Your task to perform on an android device: turn off wifi Image 0: 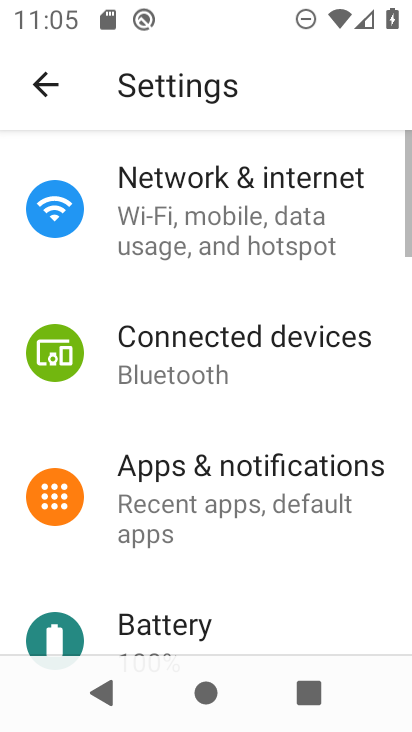
Step 0: press home button
Your task to perform on an android device: turn off wifi Image 1: 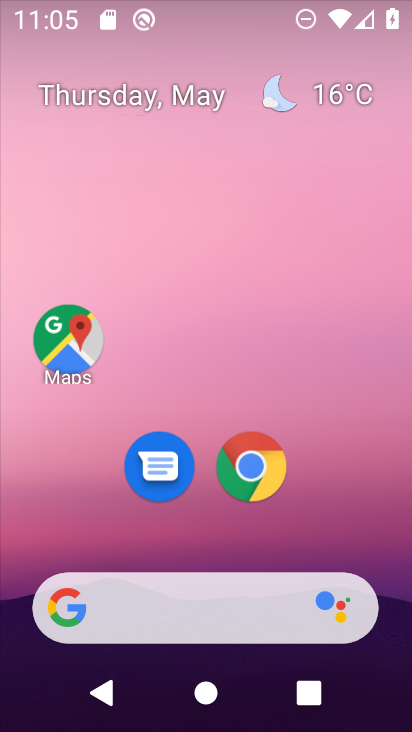
Step 1: drag from (308, 411) to (285, 202)
Your task to perform on an android device: turn off wifi Image 2: 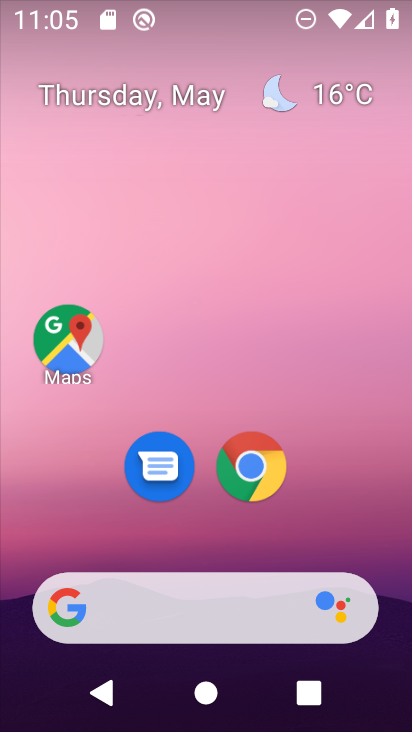
Step 2: drag from (323, 488) to (326, 265)
Your task to perform on an android device: turn off wifi Image 3: 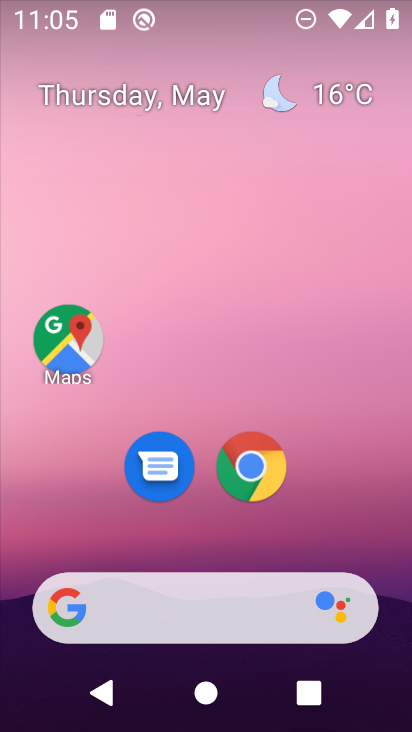
Step 3: drag from (359, 534) to (313, 209)
Your task to perform on an android device: turn off wifi Image 4: 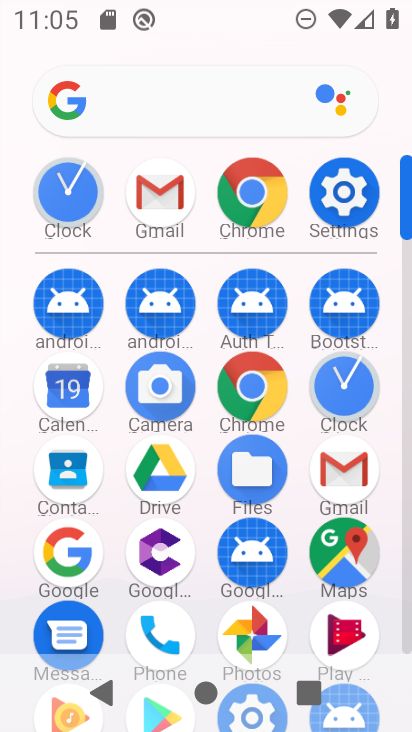
Step 4: click (343, 160)
Your task to perform on an android device: turn off wifi Image 5: 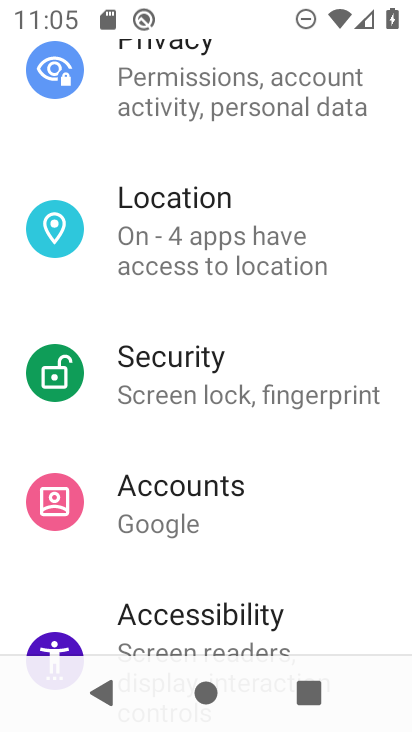
Step 5: drag from (240, 132) to (212, 631)
Your task to perform on an android device: turn off wifi Image 6: 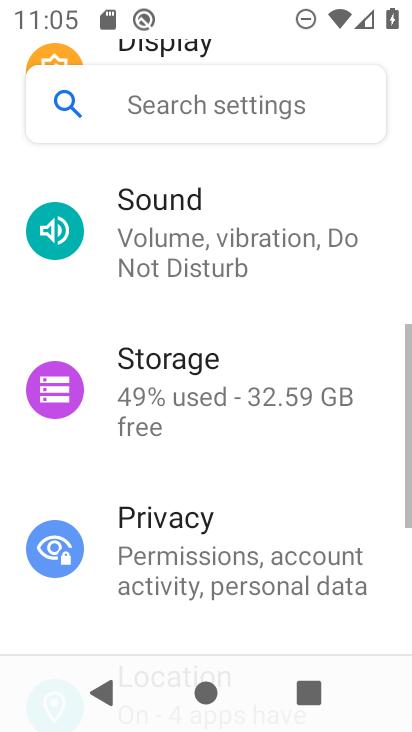
Step 6: drag from (192, 247) to (203, 663)
Your task to perform on an android device: turn off wifi Image 7: 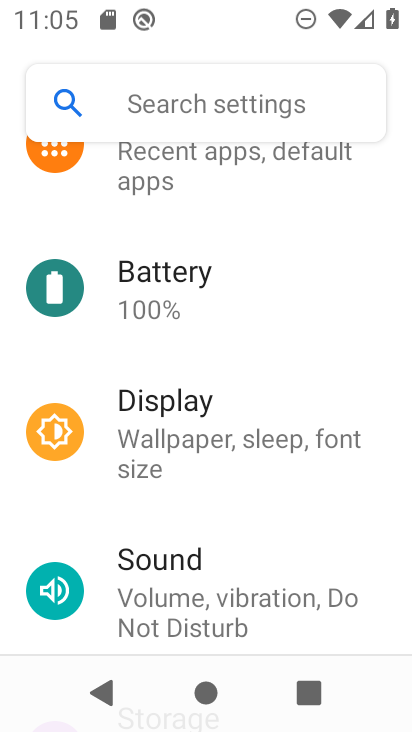
Step 7: drag from (222, 243) to (205, 613)
Your task to perform on an android device: turn off wifi Image 8: 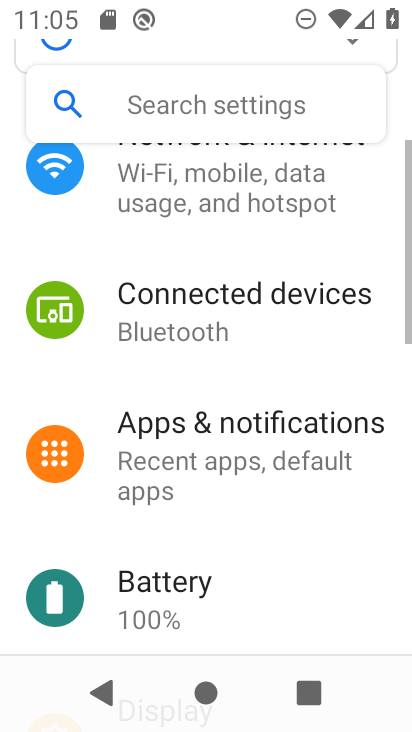
Step 8: drag from (183, 217) to (190, 603)
Your task to perform on an android device: turn off wifi Image 9: 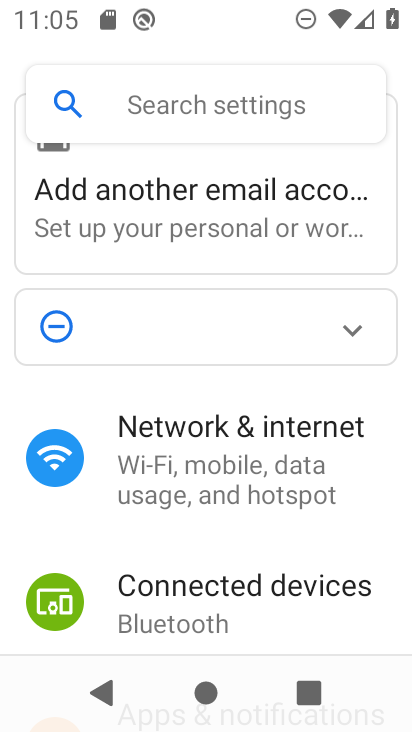
Step 9: click (179, 450)
Your task to perform on an android device: turn off wifi Image 10: 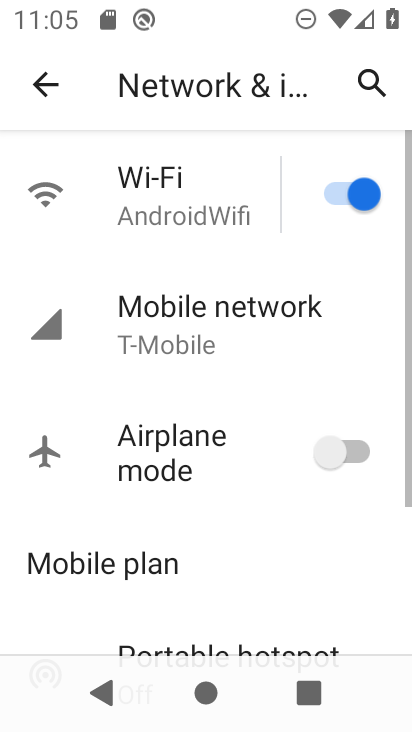
Step 10: click (352, 195)
Your task to perform on an android device: turn off wifi Image 11: 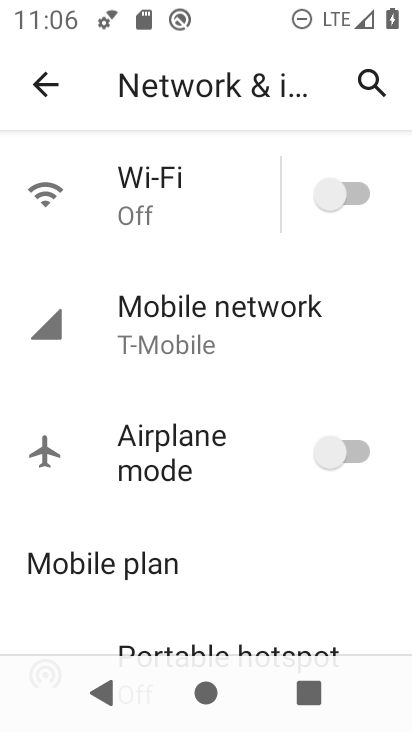
Step 11: task complete